Your task to perform on an android device: Go to network settings Image 0: 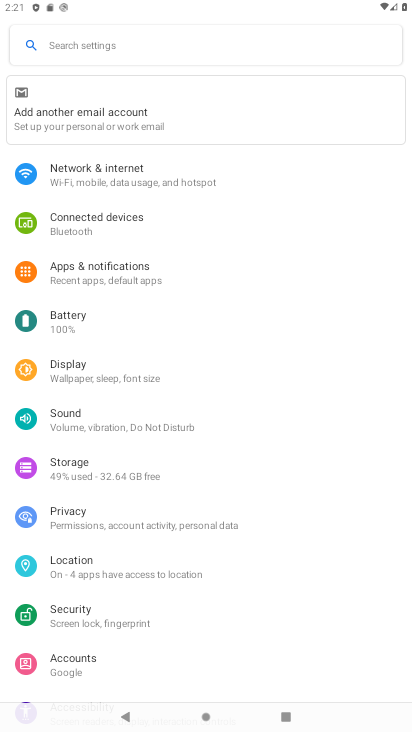
Step 0: click (91, 175)
Your task to perform on an android device: Go to network settings Image 1: 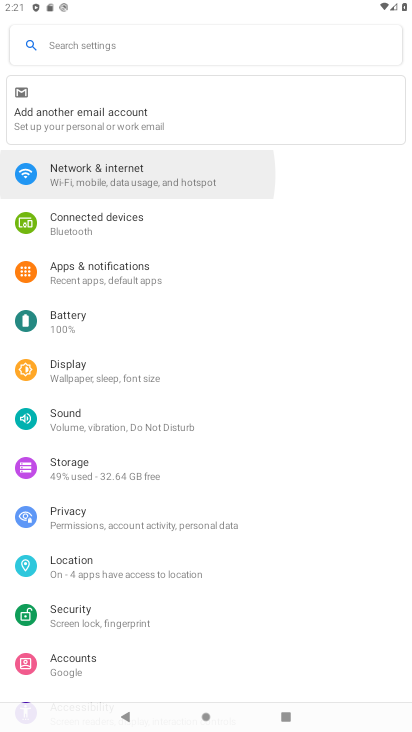
Step 1: click (104, 172)
Your task to perform on an android device: Go to network settings Image 2: 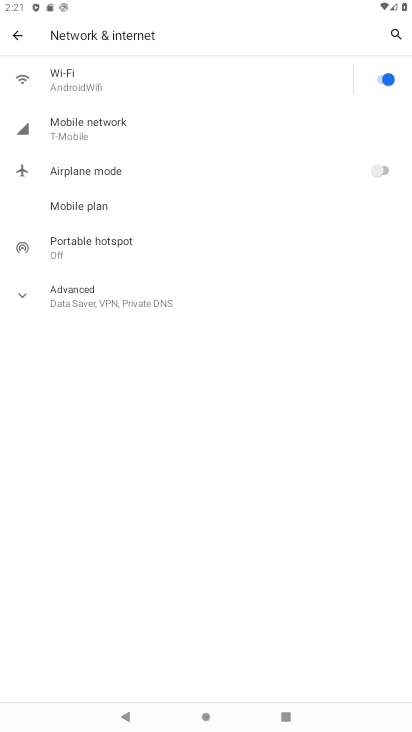
Step 2: click (136, 169)
Your task to perform on an android device: Go to network settings Image 3: 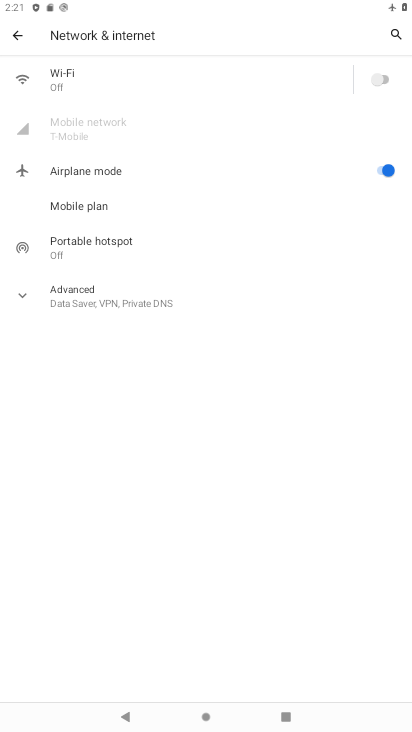
Step 3: task complete